Your task to perform on an android device: toggle location history Image 0: 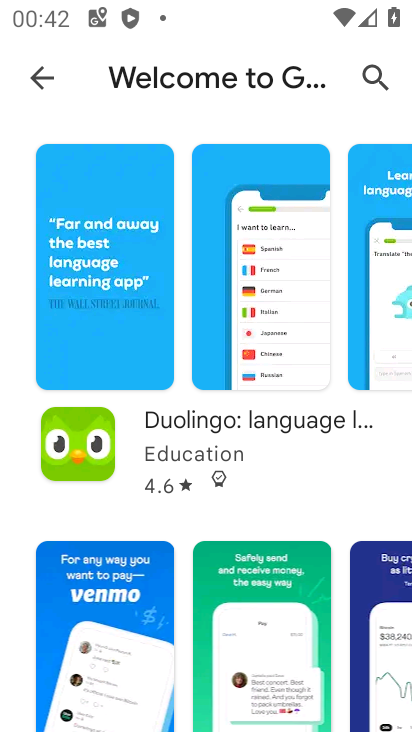
Step 0: press home button
Your task to perform on an android device: toggle location history Image 1: 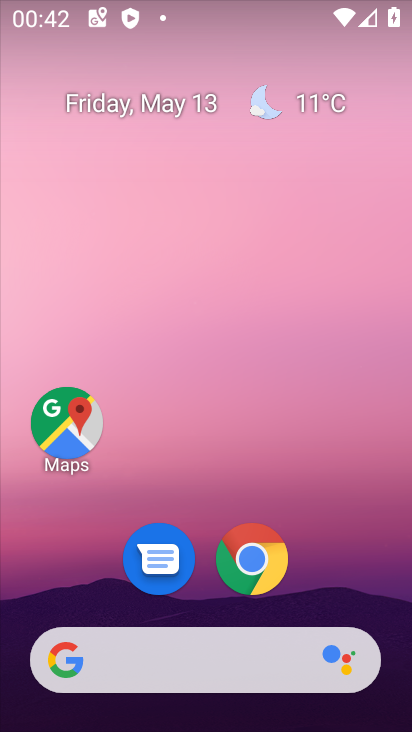
Step 1: drag from (201, 587) to (176, 112)
Your task to perform on an android device: toggle location history Image 2: 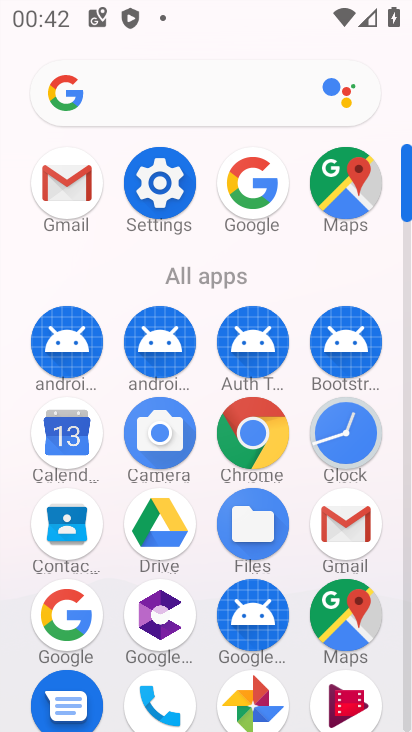
Step 2: click (158, 186)
Your task to perform on an android device: toggle location history Image 3: 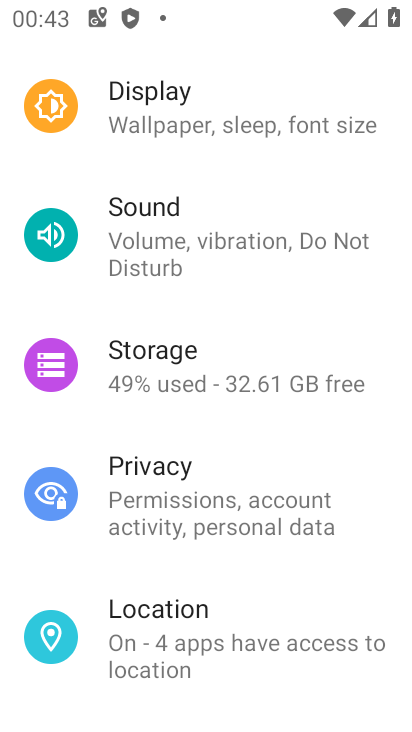
Step 3: click (213, 609)
Your task to perform on an android device: toggle location history Image 4: 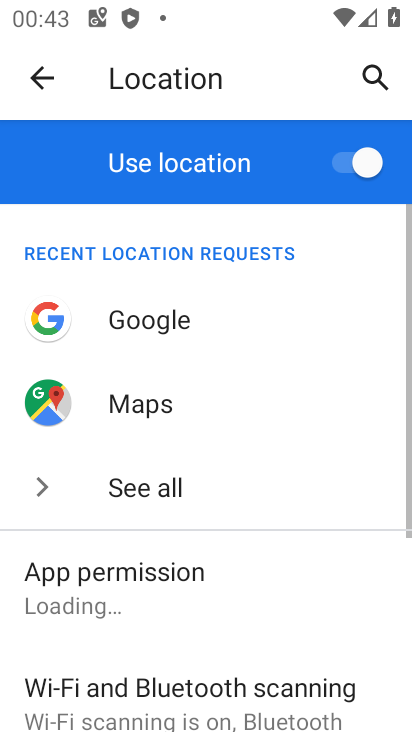
Step 4: drag from (230, 569) to (202, 106)
Your task to perform on an android device: toggle location history Image 5: 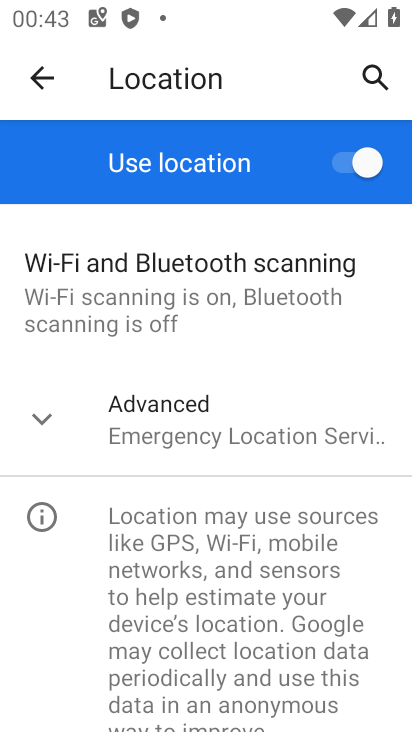
Step 5: click (127, 422)
Your task to perform on an android device: toggle location history Image 6: 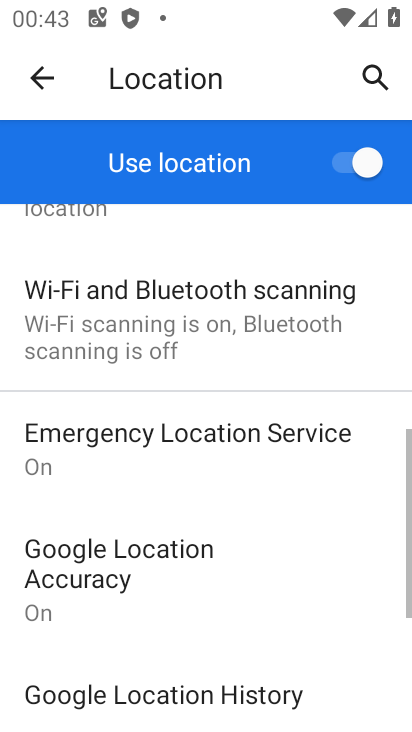
Step 6: click (118, 687)
Your task to perform on an android device: toggle location history Image 7: 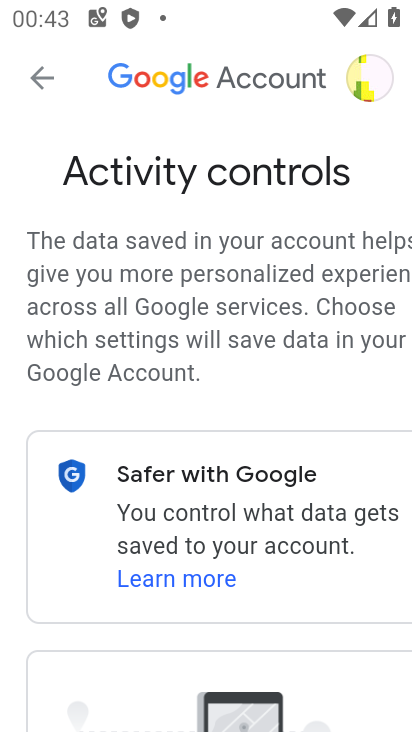
Step 7: drag from (233, 481) to (215, 24)
Your task to perform on an android device: toggle location history Image 8: 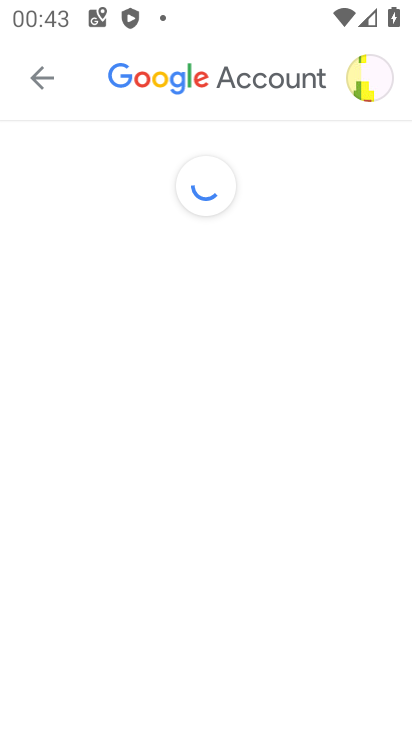
Step 8: drag from (240, 574) to (241, 66)
Your task to perform on an android device: toggle location history Image 9: 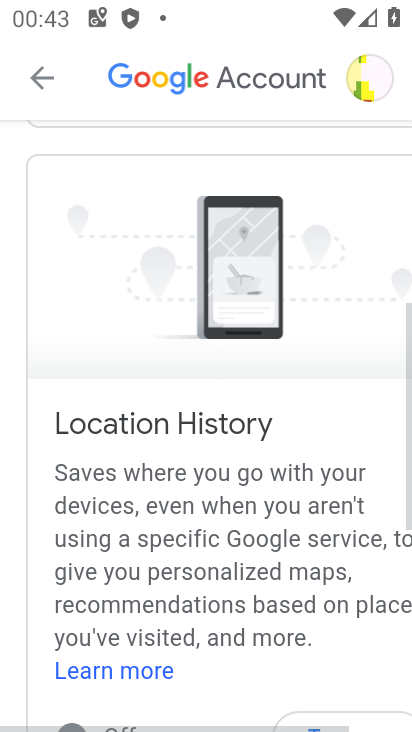
Step 9: drag from (246, 608) to (261, 306)
Your task to perform on an android device: toggle location history Image 10: 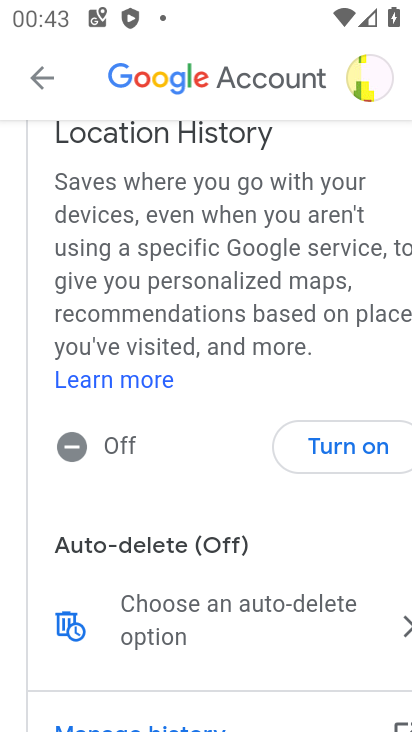
Step 10: click (354, 447)
Your task to perform on an android device: toggle location history Image 11: 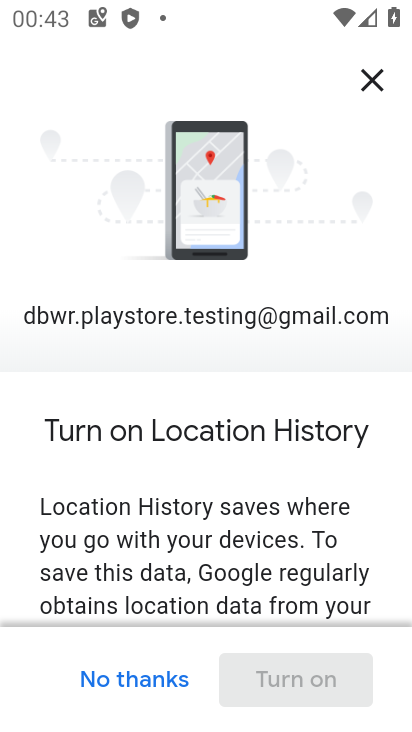
Step 11: drag from (254, 498) to (216, 66)
Your task to perform on an android device: toggle location history Image 12: 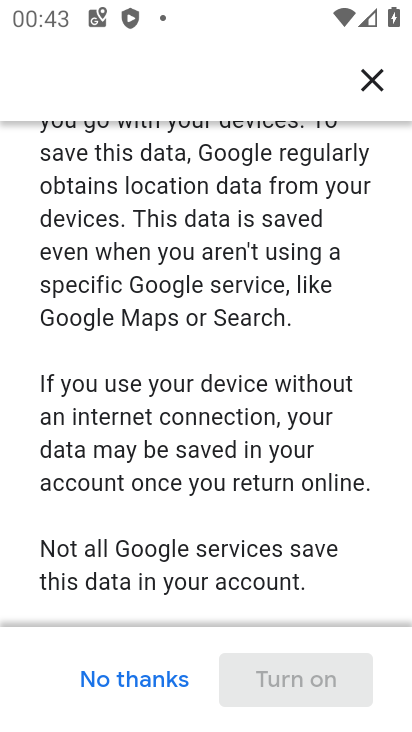
Step 12: drag from (289, 620) to (281, 146)
Your task to perform on an android device: toggle location history Image 13: 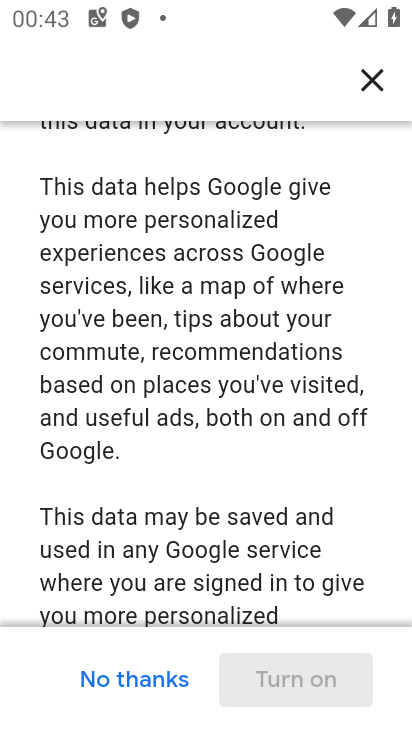
Step 13: drag from (315, 581) to (300, 117)
Your task to perform on an android device: toggle location history Image 14: 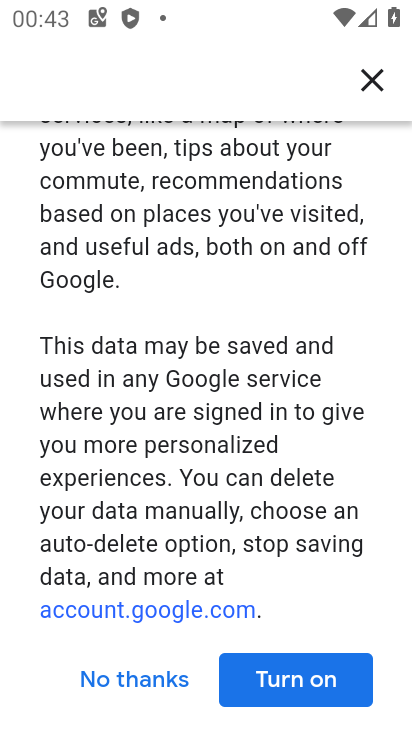
Step 14: click (309, 684)
Your task to perform on an android device: toggle location history Image 15: 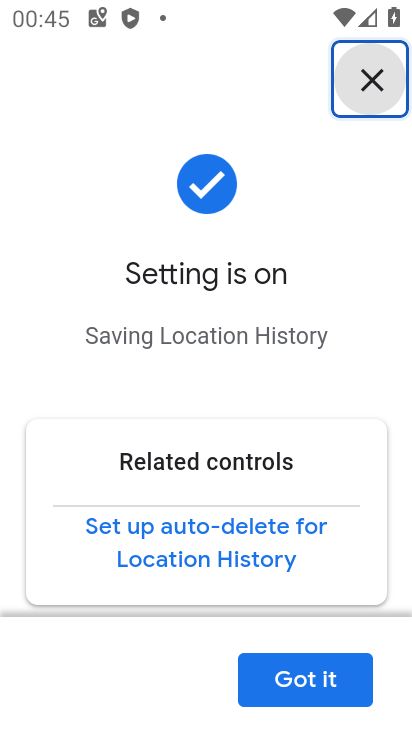
Step 15: click (309, 684)
Your task to perform on an android device: toggle location history Image 16: 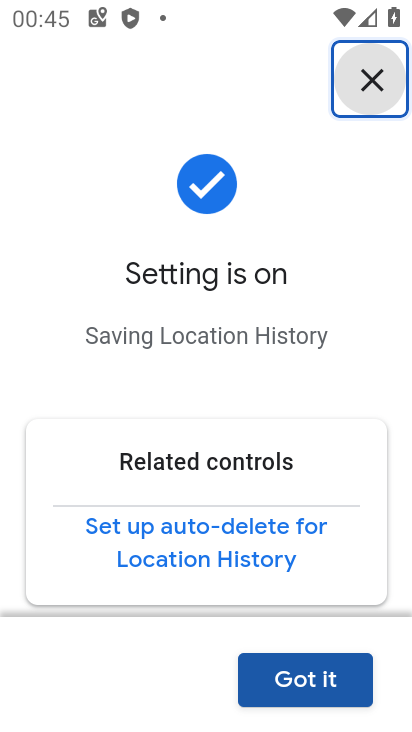
Step 16: task complete